Your task to perform on an android device: Is it going to rain today? Image 0: 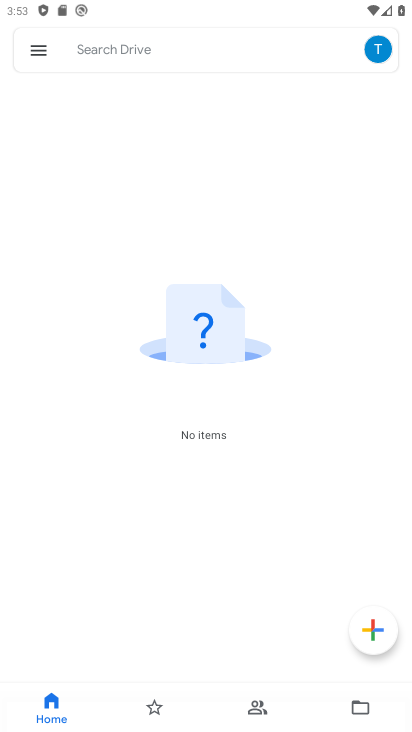
Step 0: press home button
Your task to perform on an android device: Is it going to rain today? Image 1: 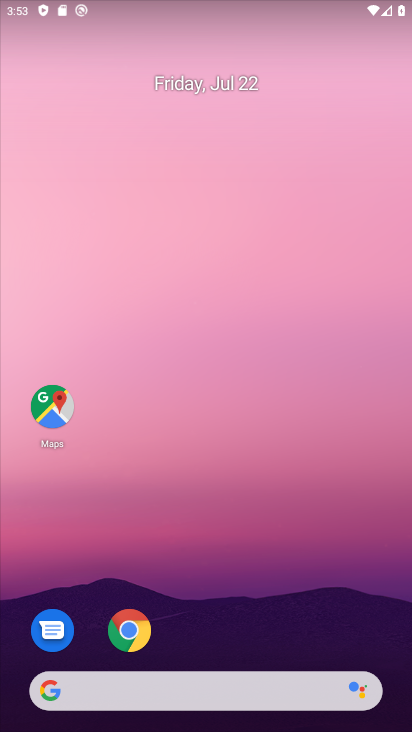
Step 1: click (243, 9)
Your task to perform on an android device: Is it going to rain today? Image 2: 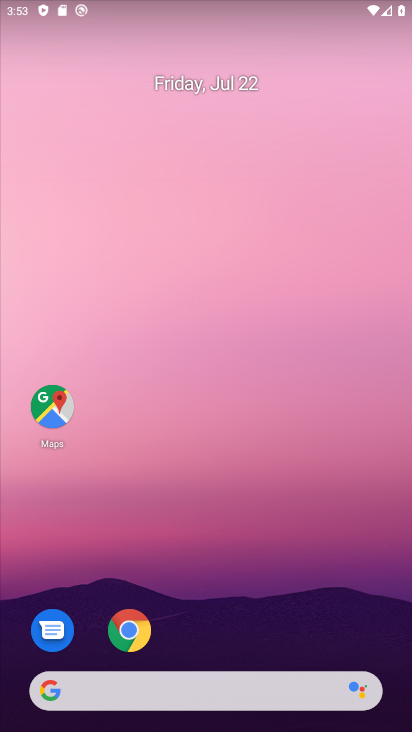
Step 2: click (172, 694)
Your task to perform on an android device: Is it going to rain today? Image 3: 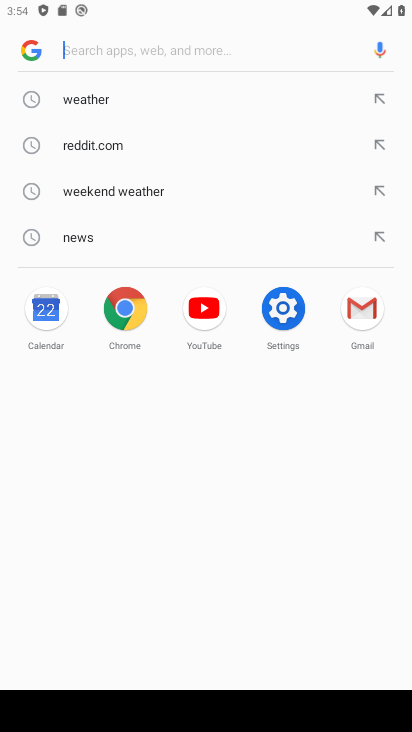
Step 3: click (86, 107)
Your task to perform on an android device: Is it going to rain today? Image 4: 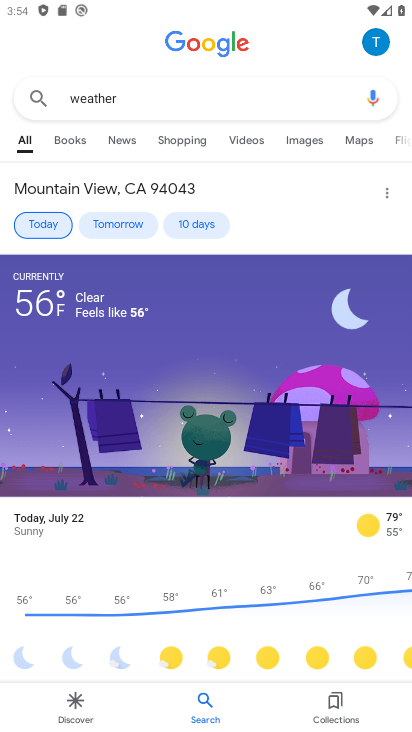
Step 4: task complete